Your task to perform on an android device: Open network settings Image 0: 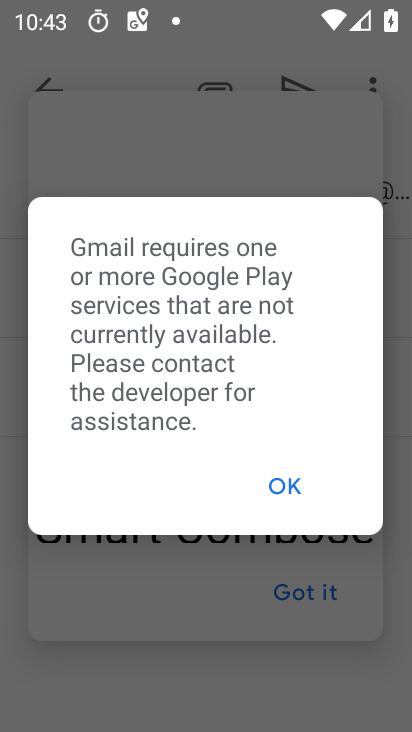
Step 0: click (292, 485)
Your task to perform on an android device: Open network settings Image 1: 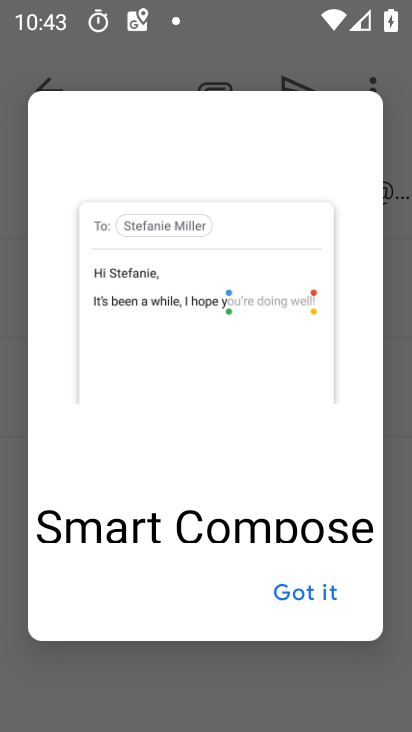
Step 1: press home button
Your task to perform on an android device: Open network settings Image 2: 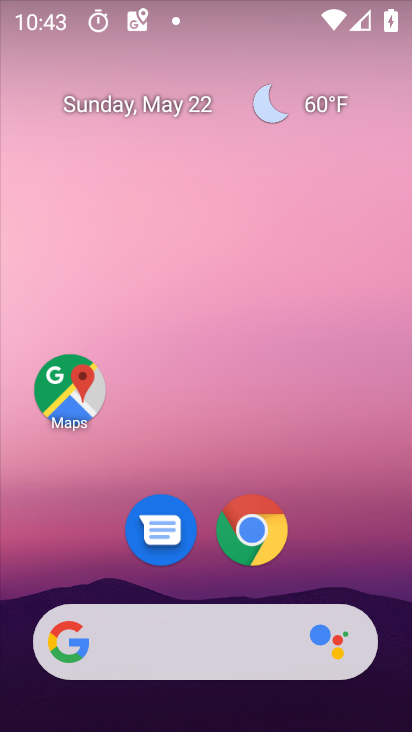
Step 2: drag from (396, 697) to (334, 228)
Your task to perform on an android device: Open network settings Image 3: 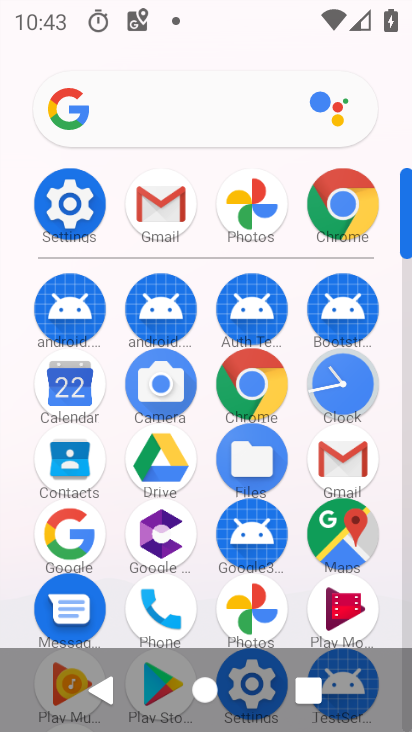
Step 3: click (98, 209)
Your task to perform on an android device: Open network settings Image 4: 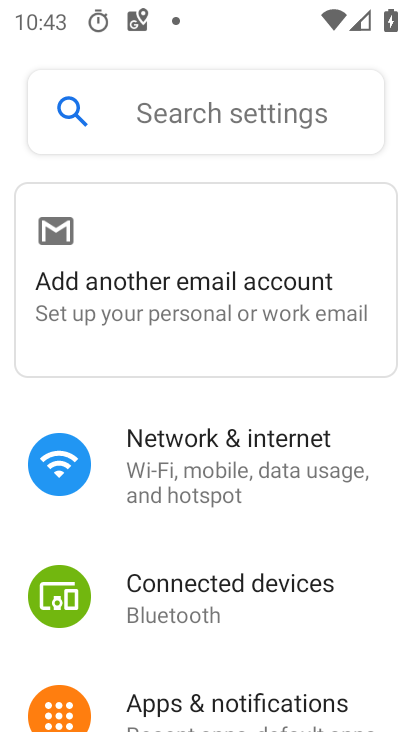
Step 4: click (222, 452)
Your task to perform on an android device: Open network settings Image 5: 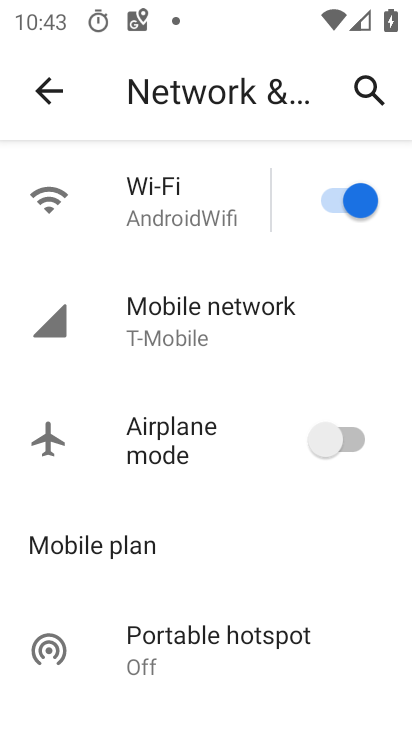
Step 5: click (170, 318)
Your task to perform on an android device: Open network settings Image 6: 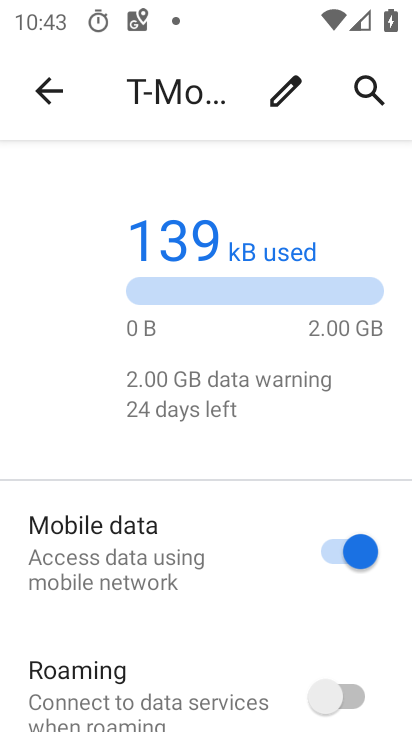
Step 6: task complete